Your task to perform on an android device: turn off smart reply in the gmail app Image 0: 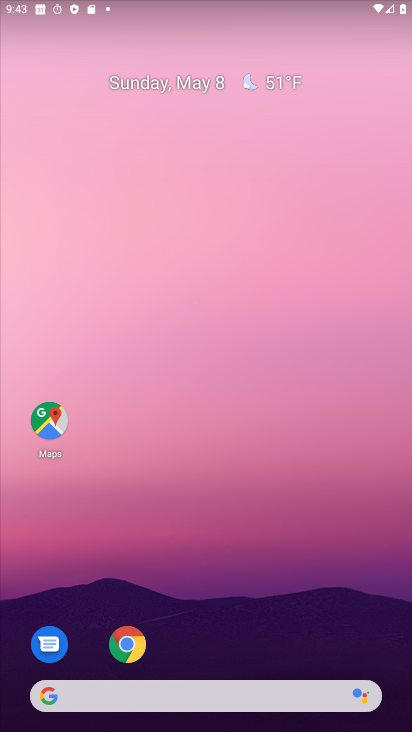
Step 0: click (393, 190)
Your task to perform on an android device: turn off smart reply in the gmail app Image 1: 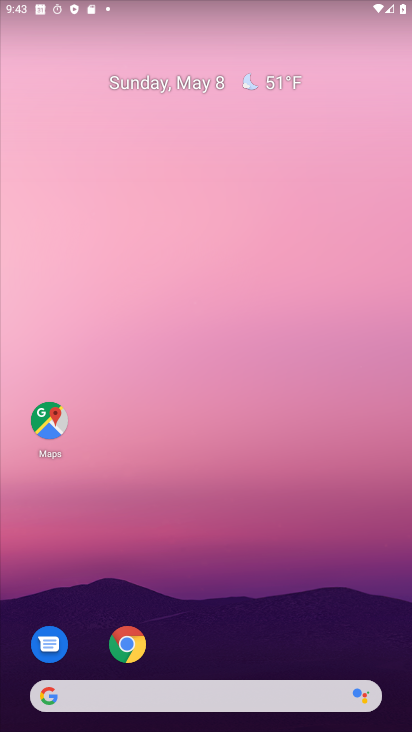
Step 1: drag from (212, 606) to (274, 74)
Your task to perform on an android device: turn off smart reply in the gmail app Image 2: 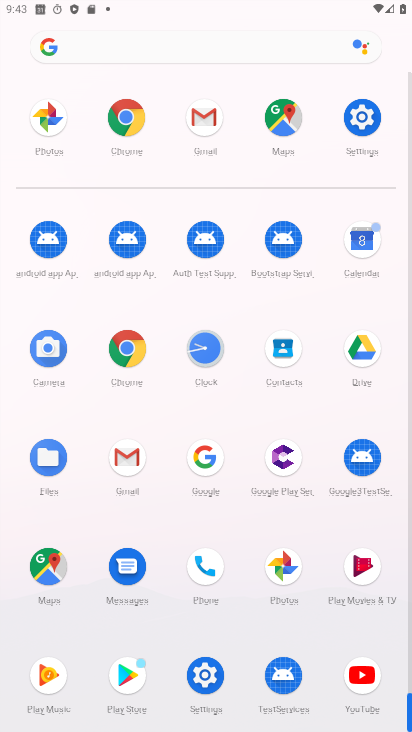
Step 2: click (123, 461)
Your task to perform on an android device: turn off smart reply in the gmail app Image 3: 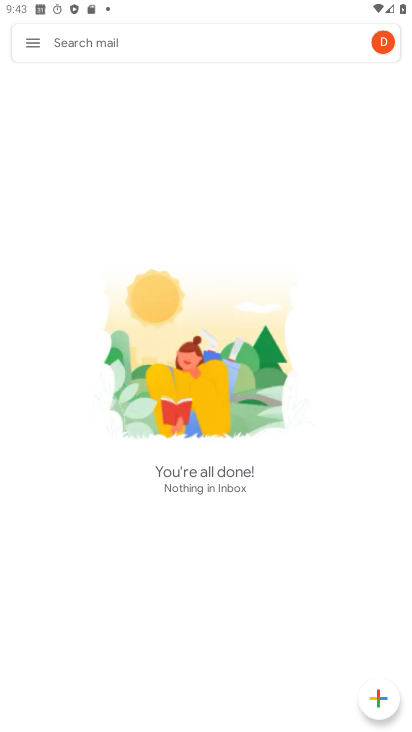
Step 3: click (34, 40)
Your task to perform on an android device: turn off smart reply in the gmail app Image 4: 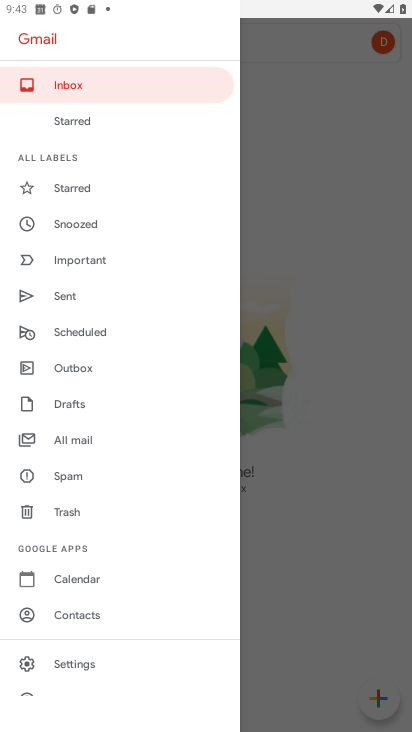
Step 4: click (90, 662)
Your task to perform on an android device: turn off smart reply in the gmail app Image 5: 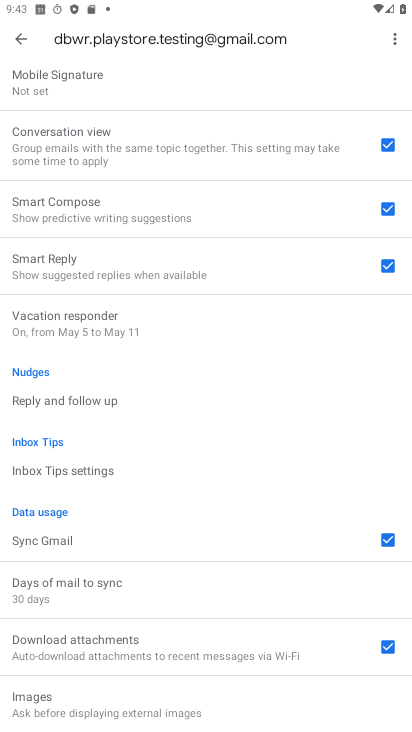
Step 5: drag from (212, 644) to (266, 372)
Your task to perform on an android device: turn off smart reply in the gmail app Image 6: 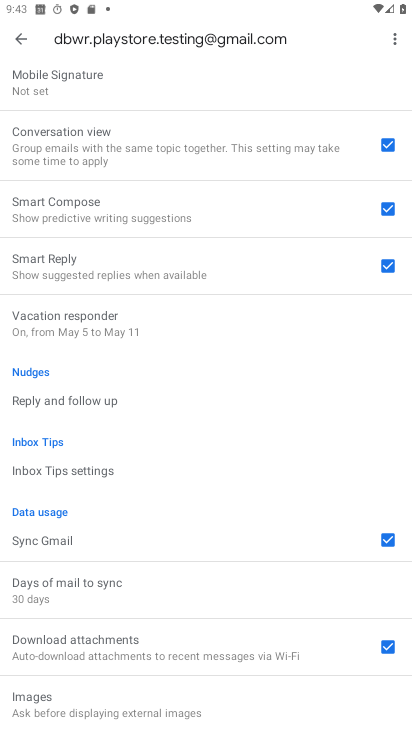
Step 6: click (388, 264)
Your task to perform on an android device: turn off smart reply in the gmail app Image 7: 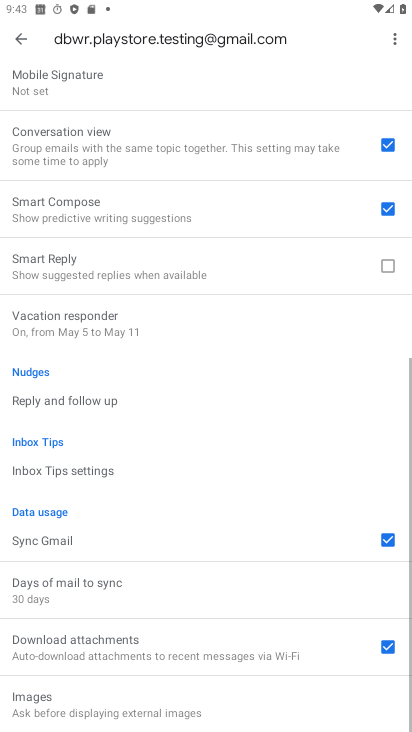
Step 7: task complete